Your task to perform on an android device: Open Google Chrome and click the shortcut for Amazon.com Image 0: 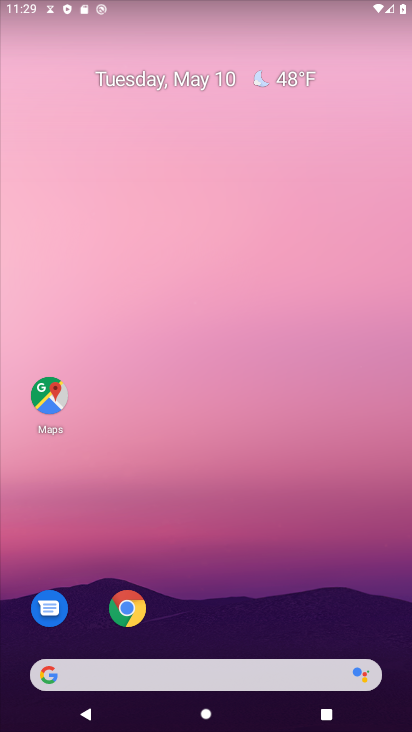
Step 0: click (132, 615)
Your task to perform on an android device: Open Google Chrome and click the shortcut for Amazon.com Image 1: 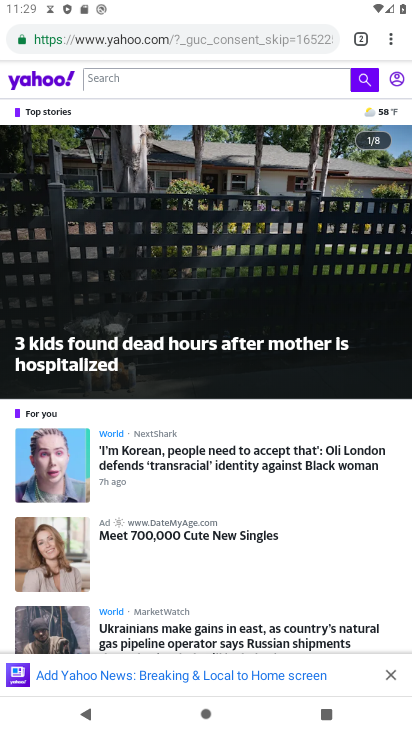
Step 1: click (368, 20)
Your task to perform on an android device: Open Google Chrome and click the shortcut for Amazon.com Image 2: 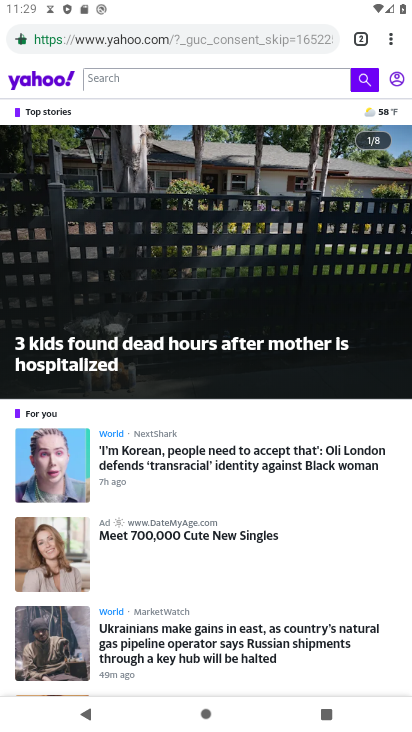
Step 2: click (364, 38)
Your task to perform on an android device: Open Google Chrome and click the shortcut for Amazon.com Image 3: 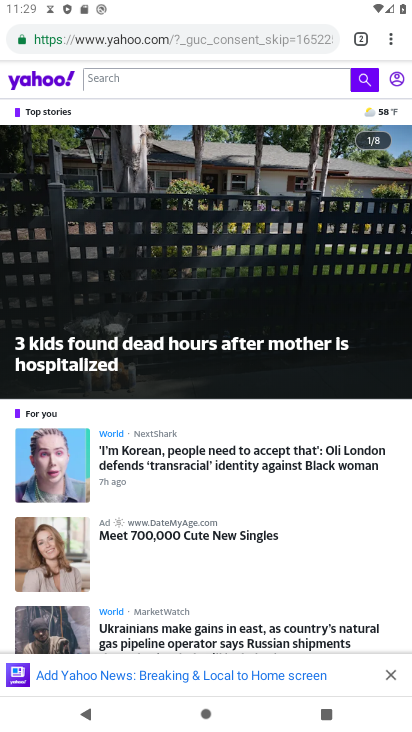
Step 3: click (361, 34)
Your task to perform on an android device: Open Google Chrome and click the shortcut for Amazon.com Image 4: 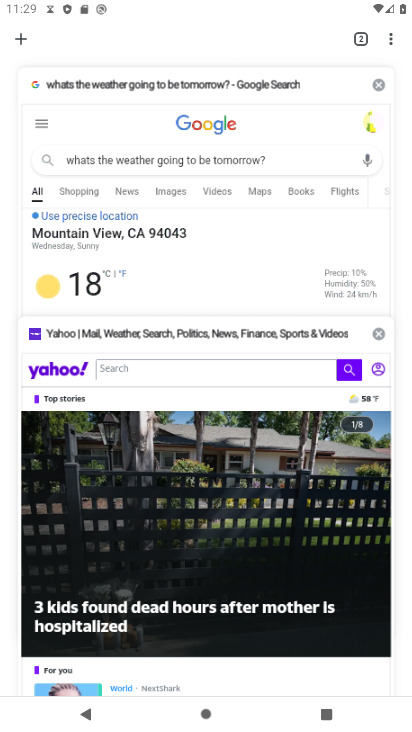
Step 4: click (21, 43)
Your task to perform on an android device: Open Google Chrome and click the shortcut for Amazon.com Image 5: 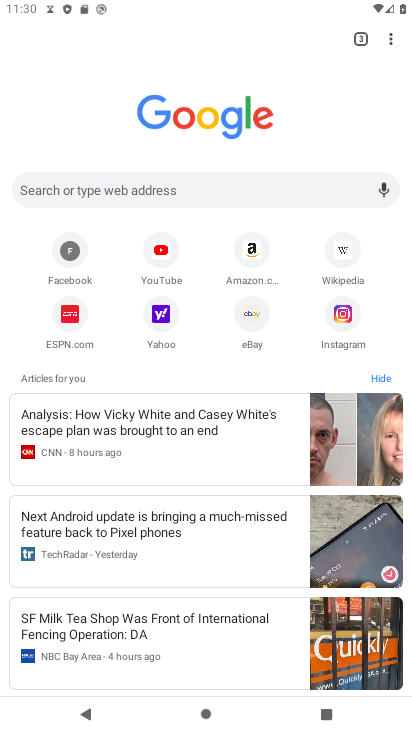
Step 5: click (248, 247)
Your task to perform on an android device: Open Google Chrome and click the shortcut for Amazon.com Image 6: 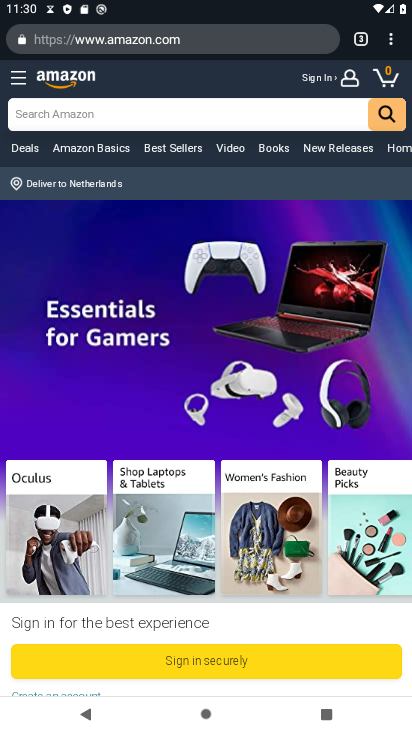
Step 6: task complete